Your task to perform on an android device: Search for "logitech g pro" on ebay.com, select the first entry, add it to the cart, then select checkout. Image 0: 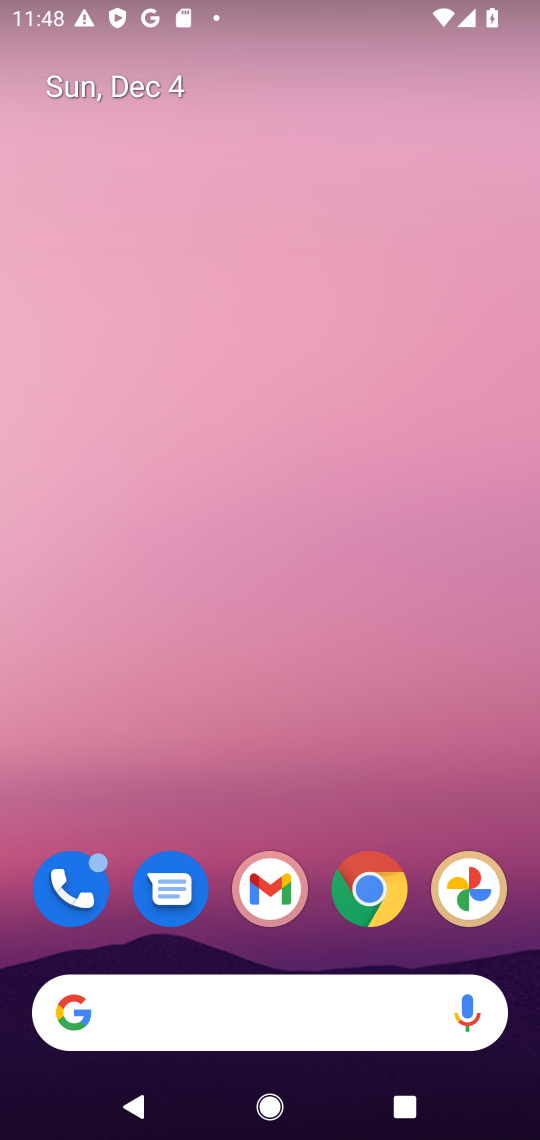
Step 0: click (368, 882)
Your task to perform on an android device: Search for "logitech g pro" on ebay.com, select the first entry, add it to the cart, then select checkout. Image 1: 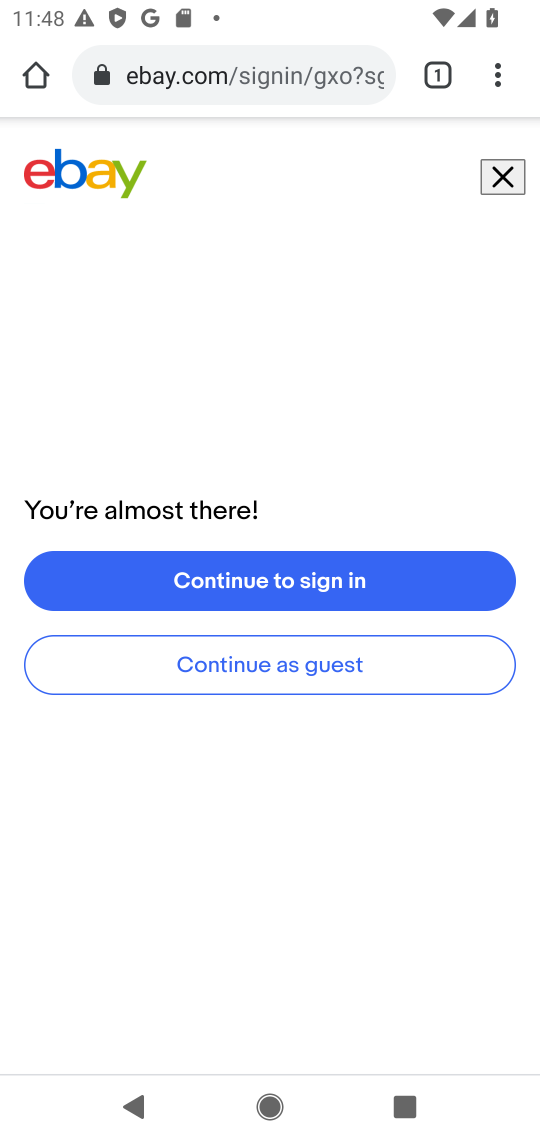
Step 1: press back button
Your task to perform on an android device: Search for "logitech g pro" on ebay.com, select the first entry, add it to the cart, then select checkout. Image 2: 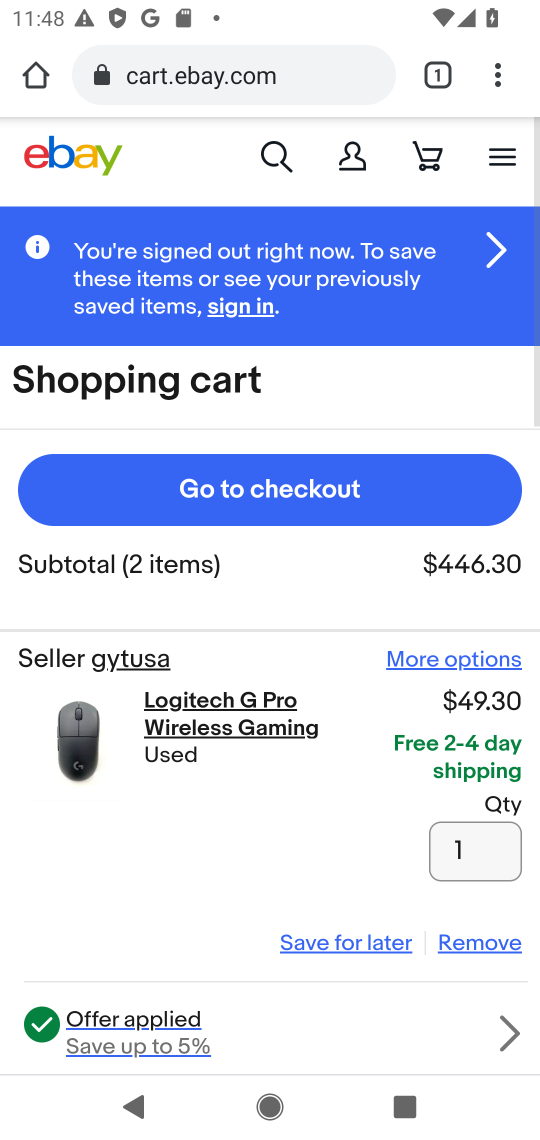
Step 2: click (276, 154)
Your task to perform on an android device: Search for "logitech g pro" on ebay.com, select the first entry, add it to the cart, then select checkout. Image 3: 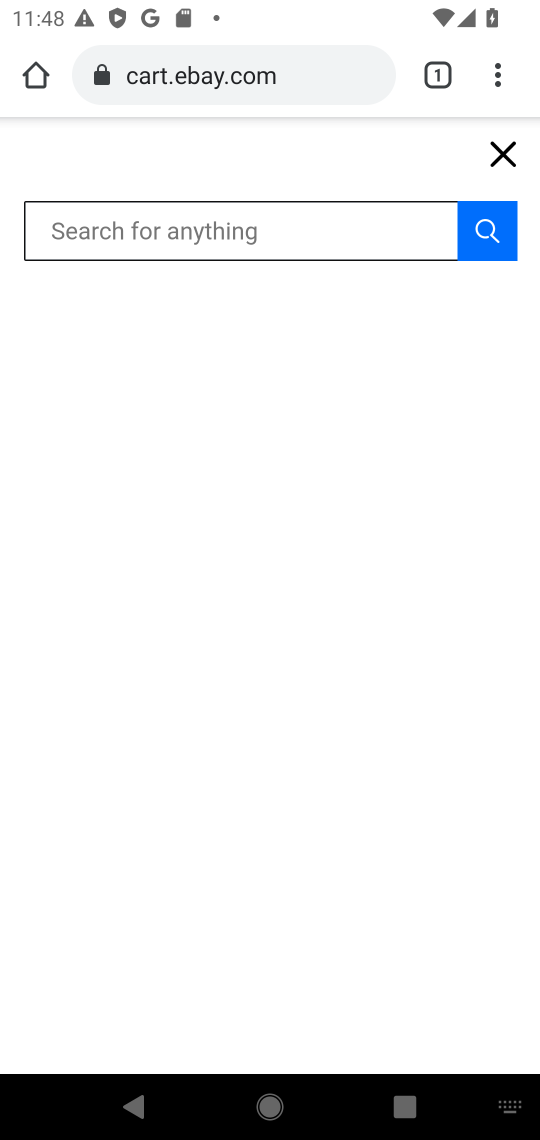
Step 3: type "logitech g pro"
Your task to perform on an android device: Search for "logitech g pro" on ebay.com, select the first entry, add it to the cart, then select checkout. Image 4: 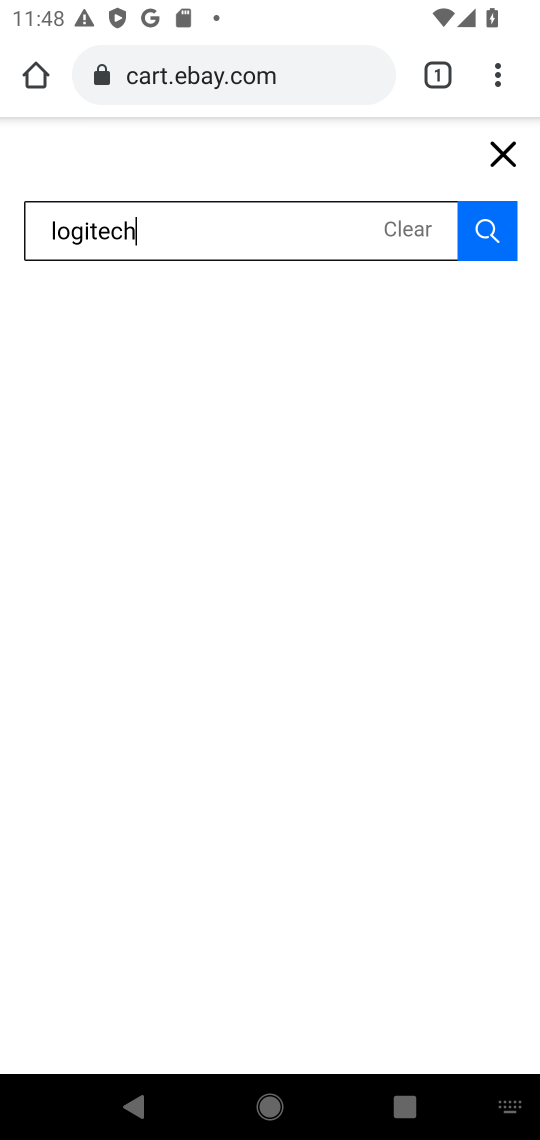
Step 4: press enter
Your task to perform on an android device: Search for "logitech g pro" on ebay.com, select the first entry, add it to the cart, then select checkout. Image 5: 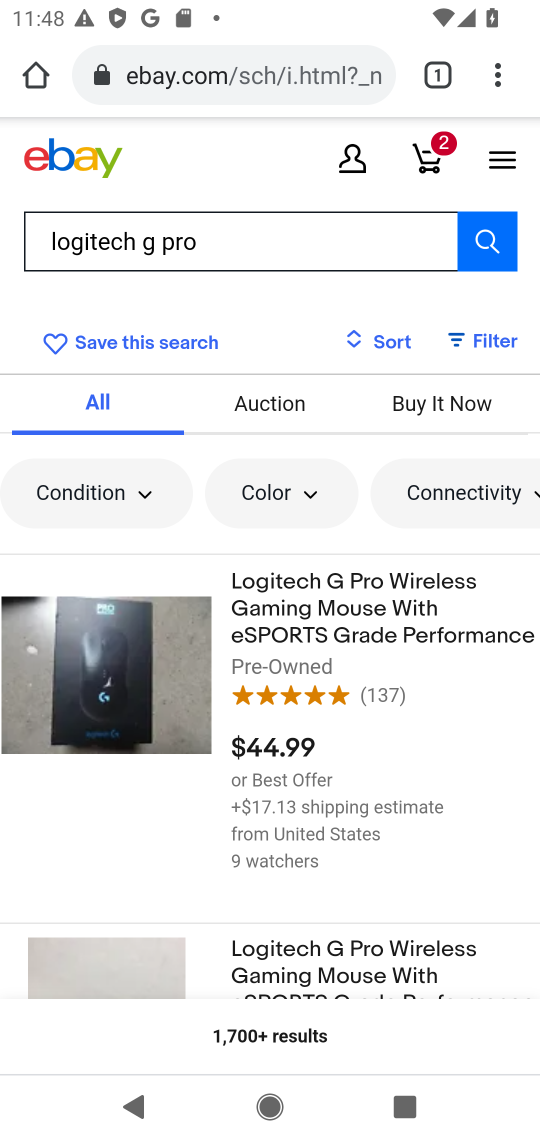
Step 5: click (75, 669)
Your task to perform on an android device: Search for "logitech g pro" on ebay.com, select the first entry, add it to the cart, then select checkout. Image 6: 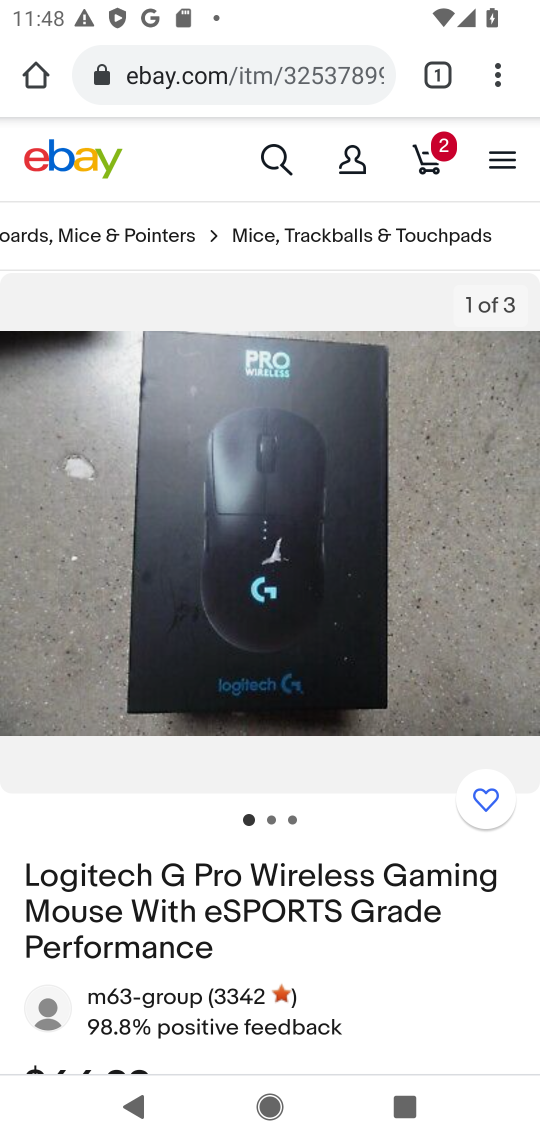
Step 6: drag from (303, 623) to (288, 256)
Your task to perform on an android device: Search for "logitech g pro" on ebay.com, select the first entry, add it to the cart, then select checkout. Image 7: 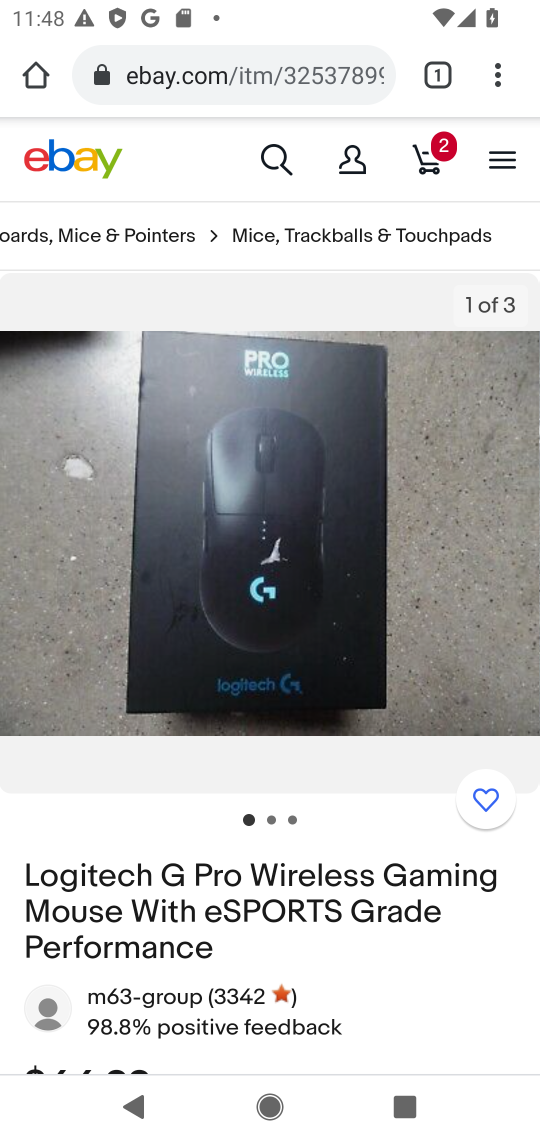
Step 7: drag from (433, 980) to (387, 258)
Your task to perform on an android device: Search for "logitech g pro" on ebay.com, select the first entry, add it to the cart, then select checkout. Image 8: 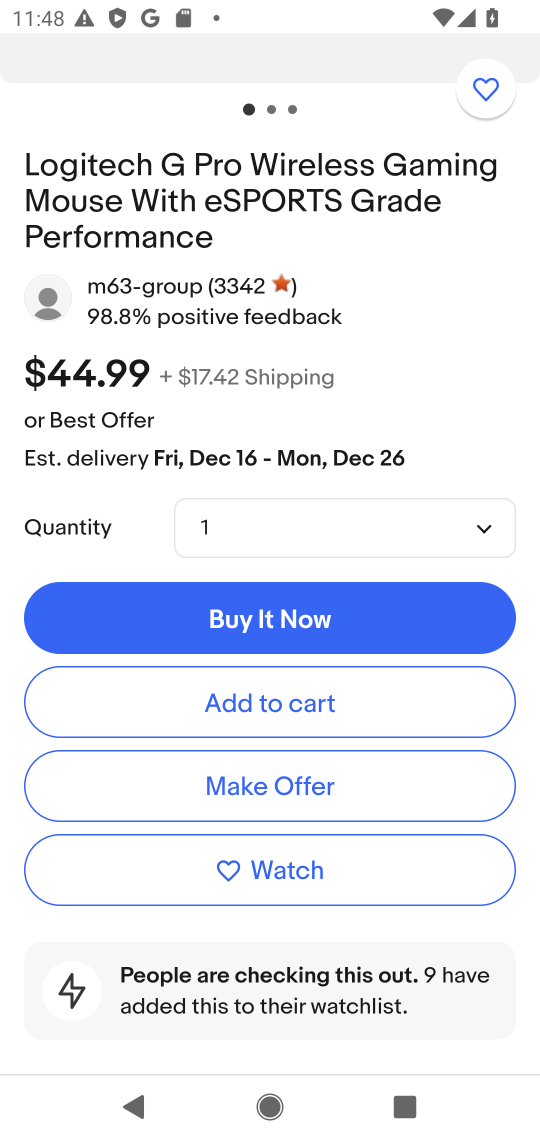
Step 8: click (288, 691)
Your task to perform on an android device: Search for "logitech g pro" on ebay.com, select the first entry, add it to the cart, then select checkout. Image 9: 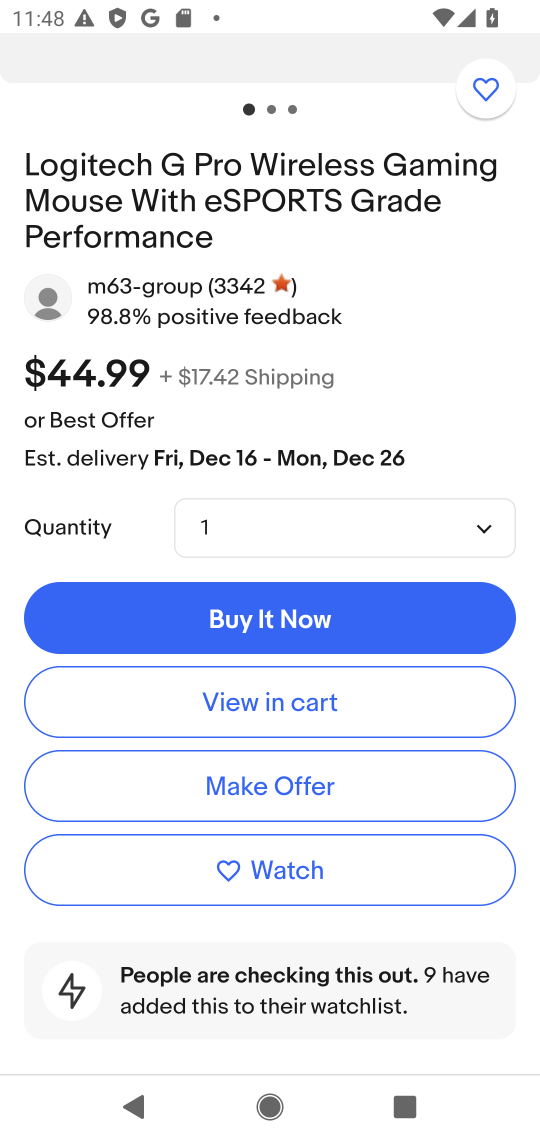
Step 9: click (315, 704)
Your task to perform on an android device: Search for "logitech g pro" on ebay.com, select the first entry, add it to the cart, then select checkout. Image 10: 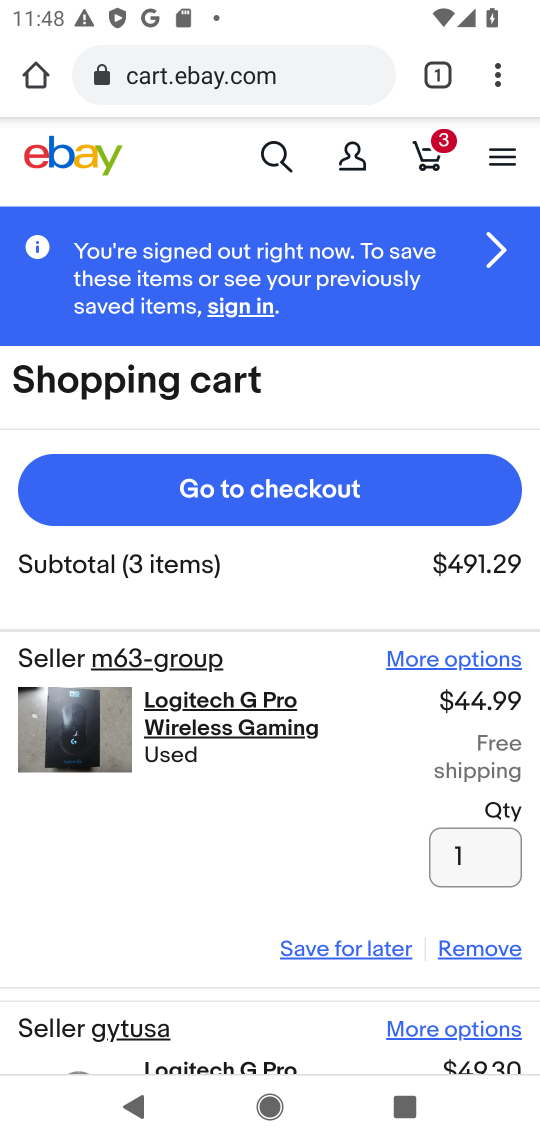
Step 10: click (276, 488)
Your task to perform on an android device: Search for "logitech g pro" on ebay.com, select the first entry, add it to the cart, then select checkout. Image 11: 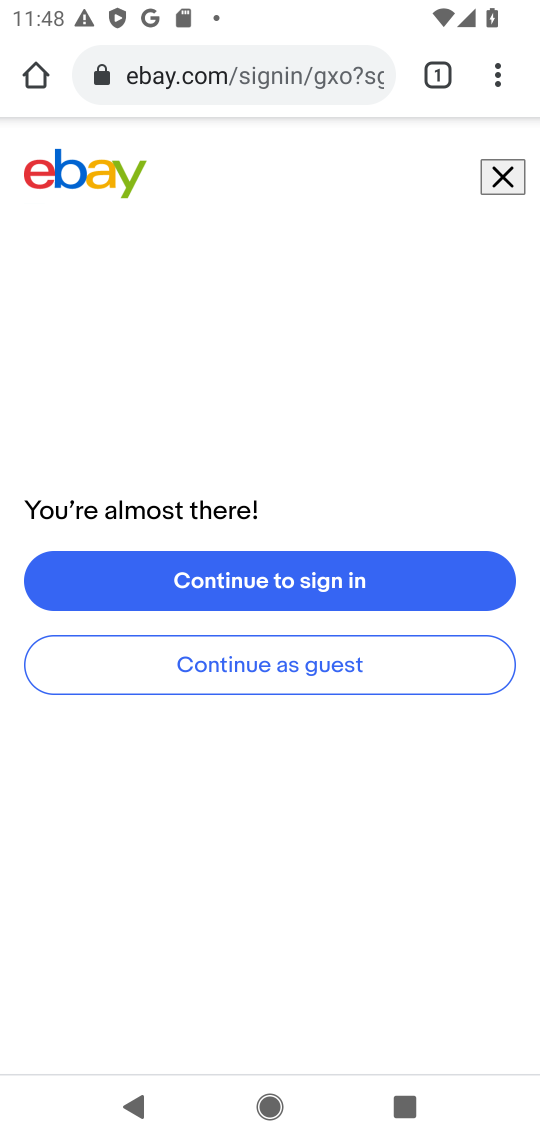
Step 11: task complete